Your task to perform on an android device: set an alarm Image 0: 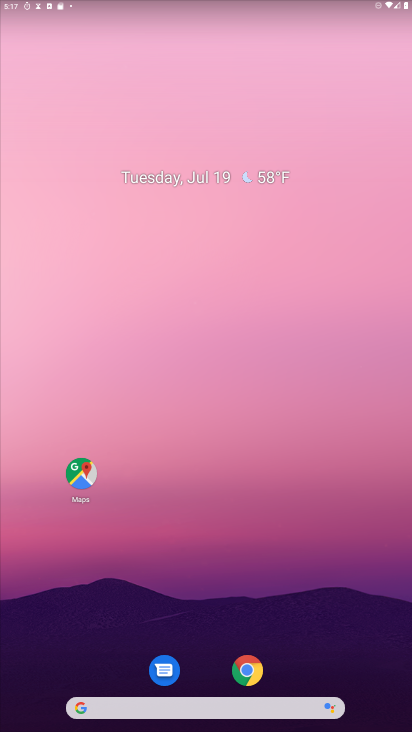
Step 0: drag from (261, 664) to (245, 6)
Your task to perform on an android device: set an alarm Image 1: 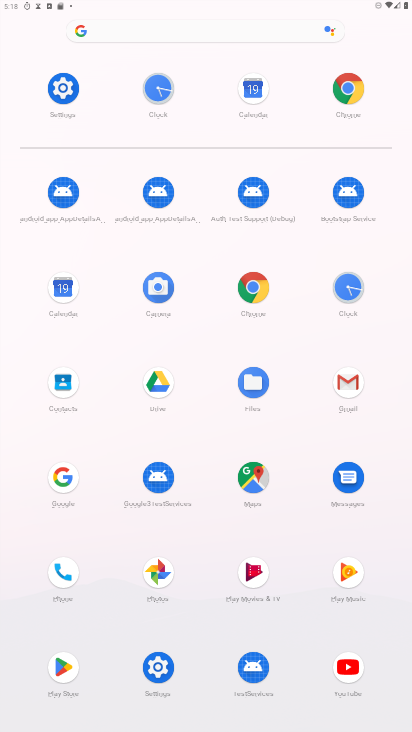
Step 1: click (341, 283)
Your task to perform on an android device: set an alarm Image 2: 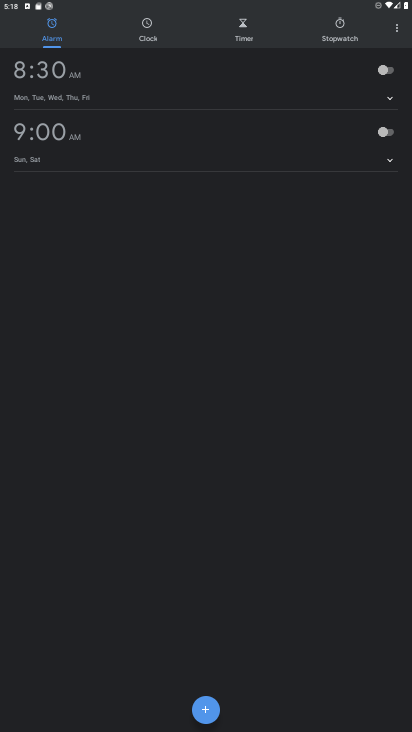
Step 2: task complete